Your task to perform on an android device: change alarm snooze length Image 0: 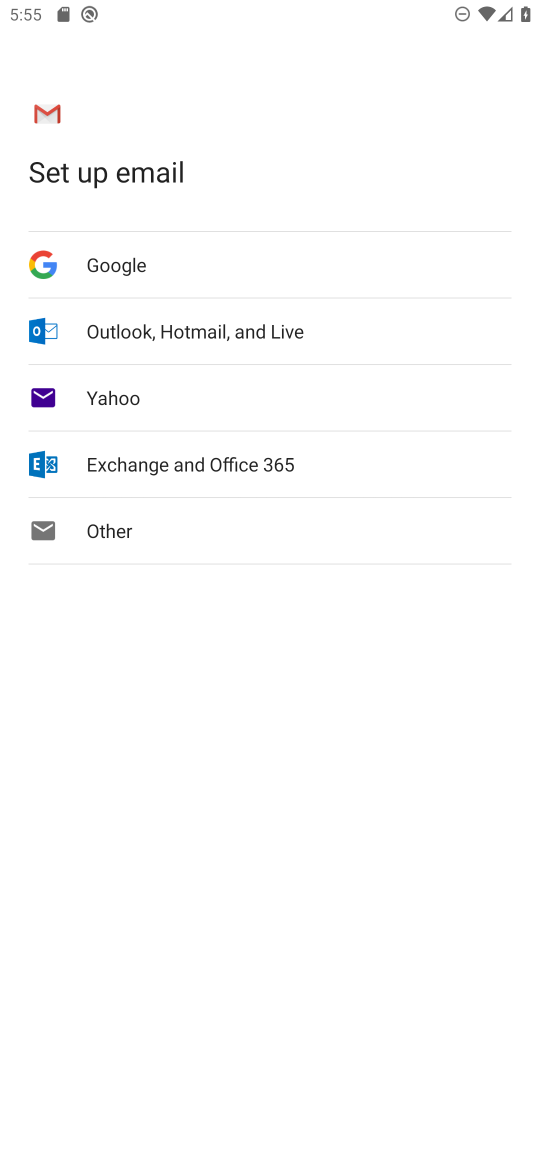
Step 0: press home button
Your task to perform on an android device: change alarm snooze length Image 1: 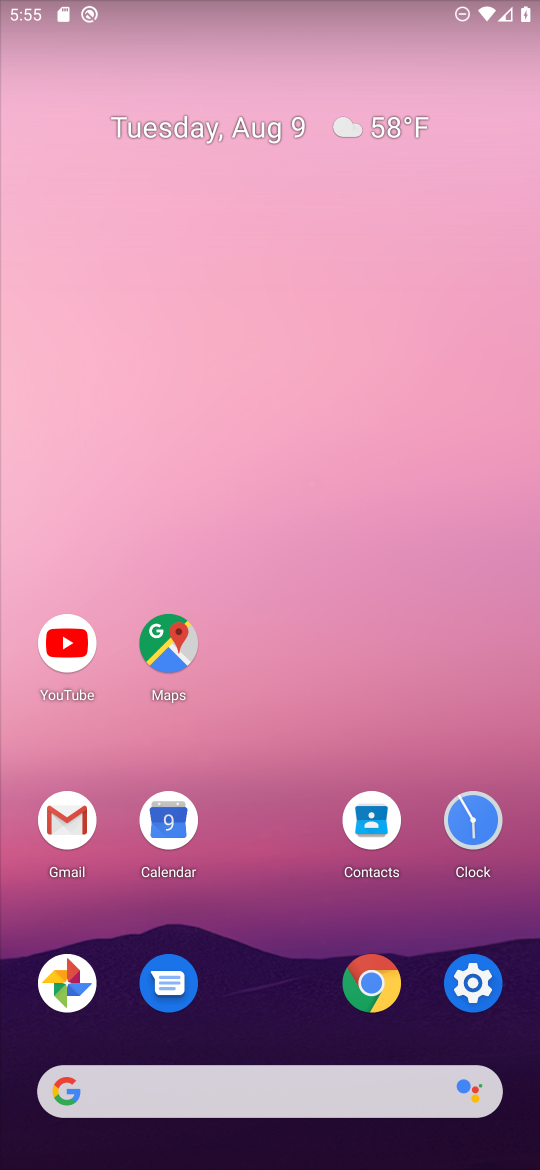
Step 1: click (478, 822)
Your task to perform on an android device: change alarm snooze length Image 2: 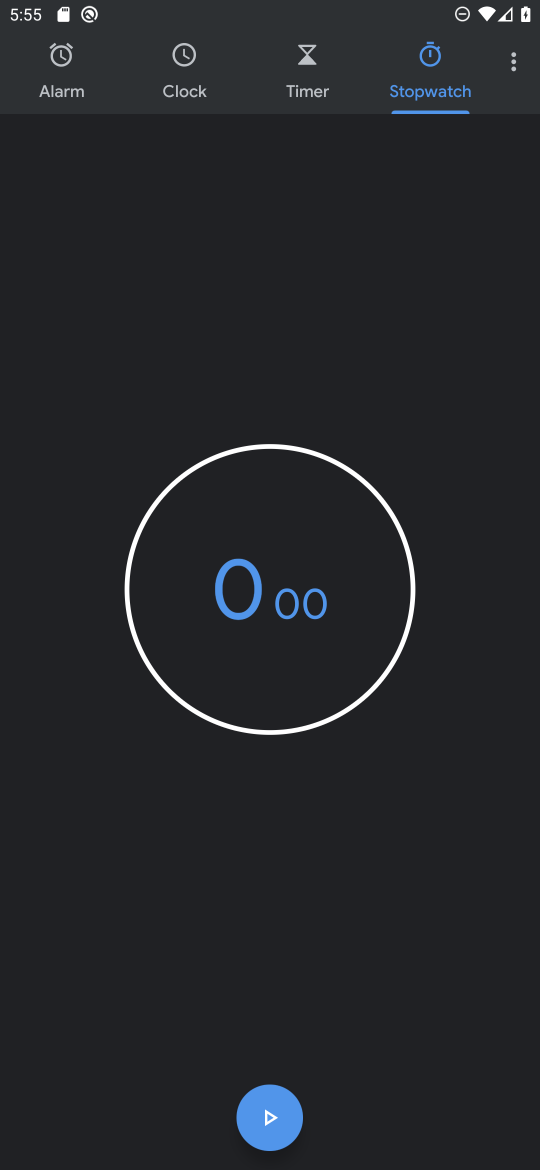
Step 2: click (508, 65)
Your task to perform on an android device: change alarm snooze length Image 3: 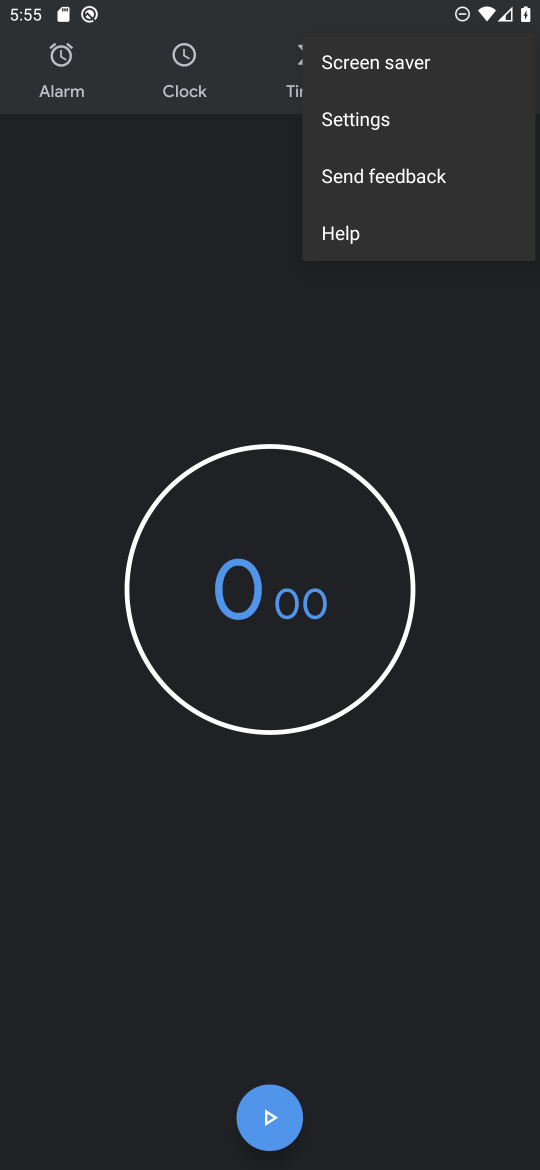
Step 3: click (376, 107)
Your task to perform on an android device: change alarm snooze length Image 4: 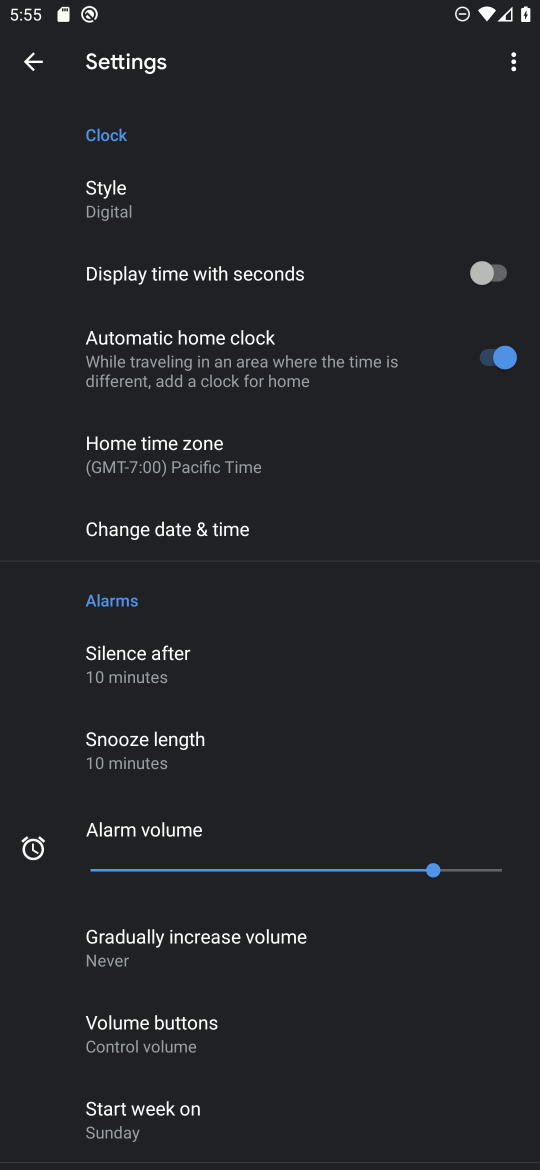
Step 4: click (178, 732)
Your task to perform on an android device: change alarm snooze length Image 5: 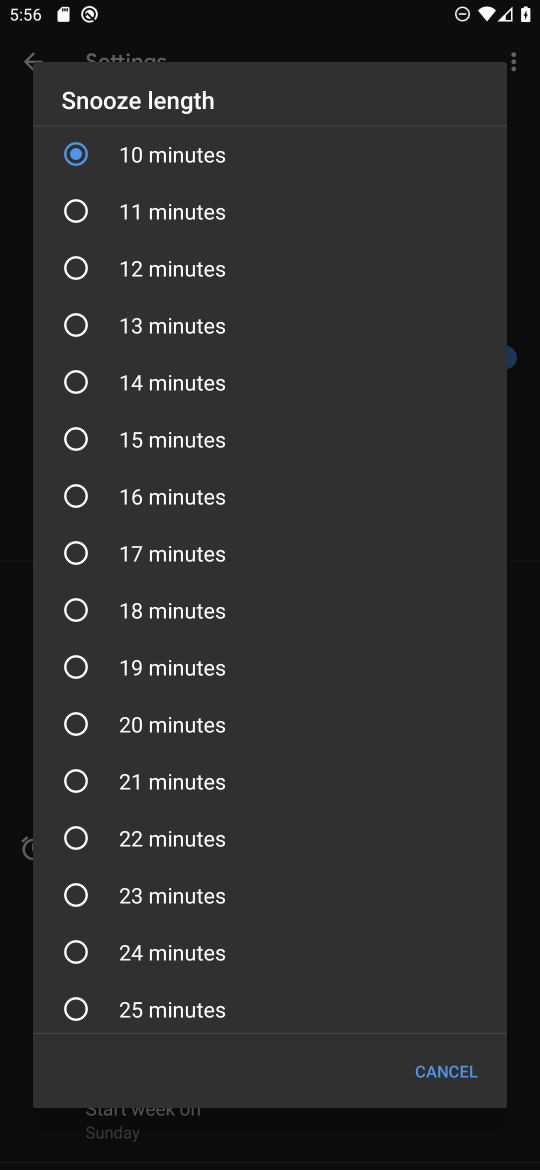
Step 5: click (65, 553)
Your task to perform on an android device: change alarm snooze length Image 6: 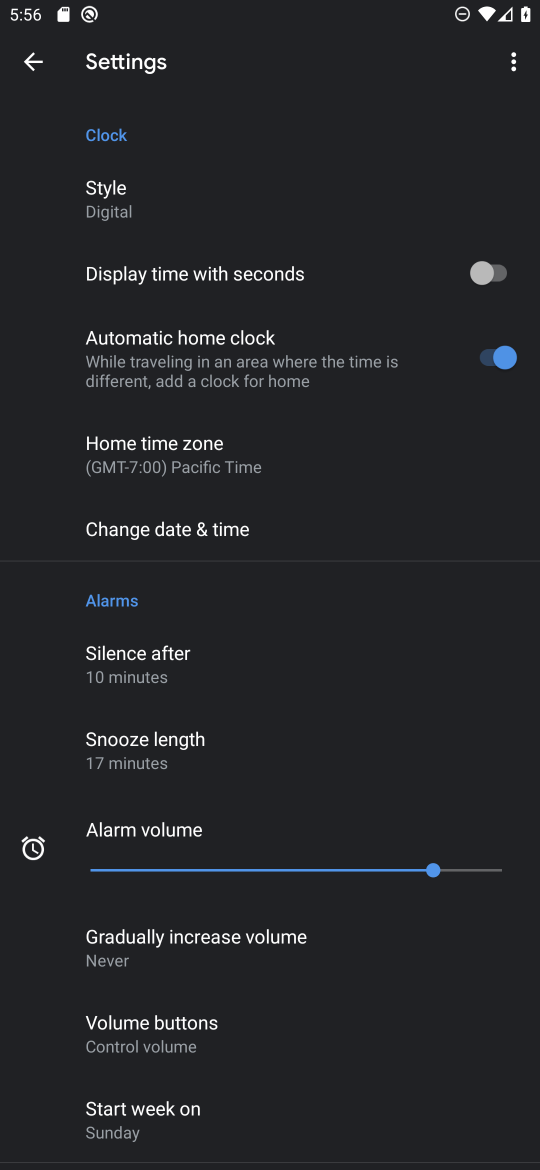
Step 6: task complete